Your task to perform on an android device: Open the calendar app, open the side menu, and click the "Day" option Image 0: 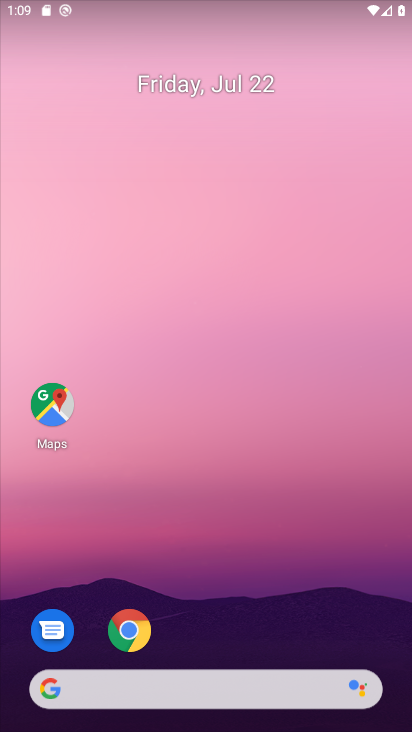
Step 0: drag from (208, 579) to (264, 144)
Your task to perform on an android device: Open the calendar app, open the side menu, and click the "Day" option Image 1: 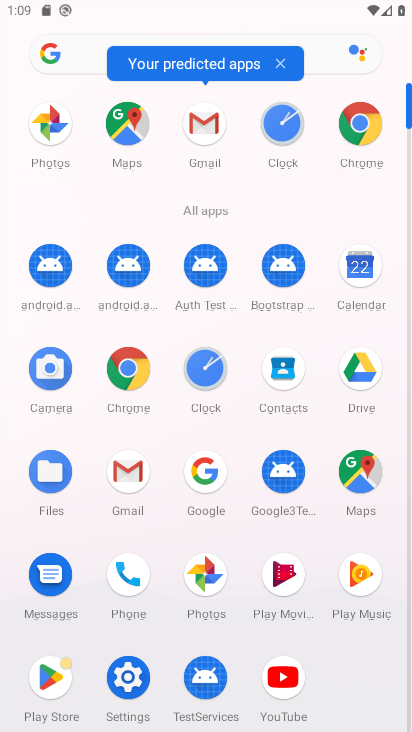
Step 1: click (352, 266)
Your task to perform on an android device: Open the calendar app, open the side menu, and click the "Day" option Image 2: 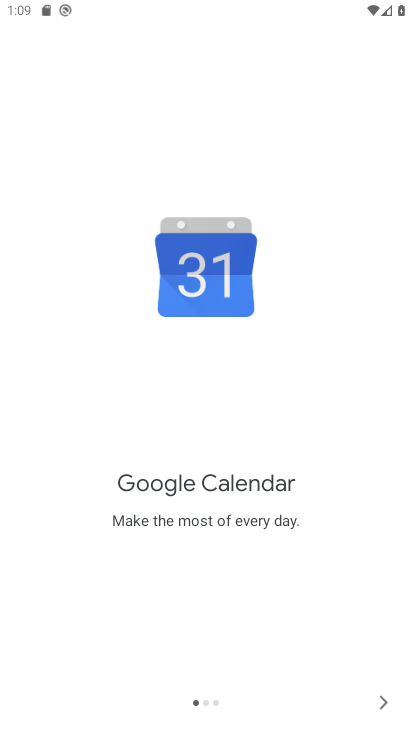
Step 2: click (376, 701)
Your task to perform on an android device: Open the calendar app, open the side menu, and click the "Day" option Image 3: 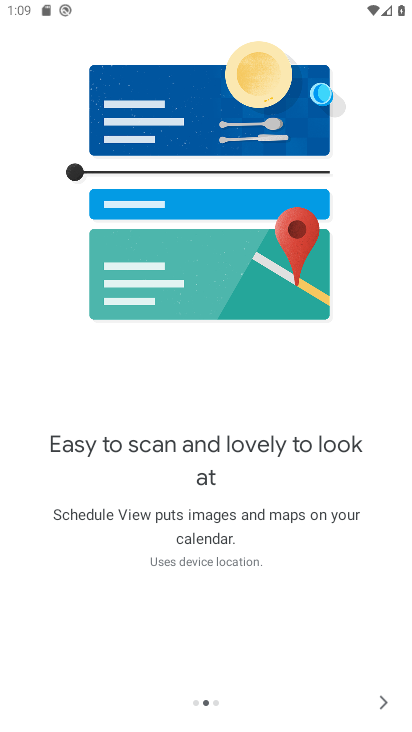
Step 3: click (376, 701)
Your task to perform on an android device: Open the calendar app, open the side menu, and click the "Day" option Image 4: 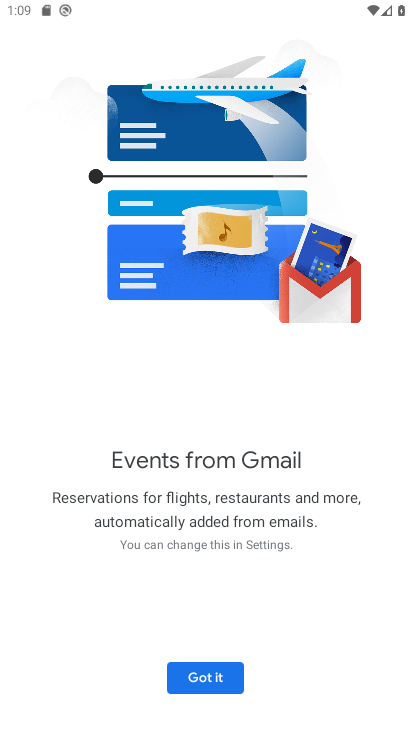
Step 4: click (210, 679)
Your task to perform on an android device: Open the calendar app, open the side menu, and click the "Day" option Image 5: 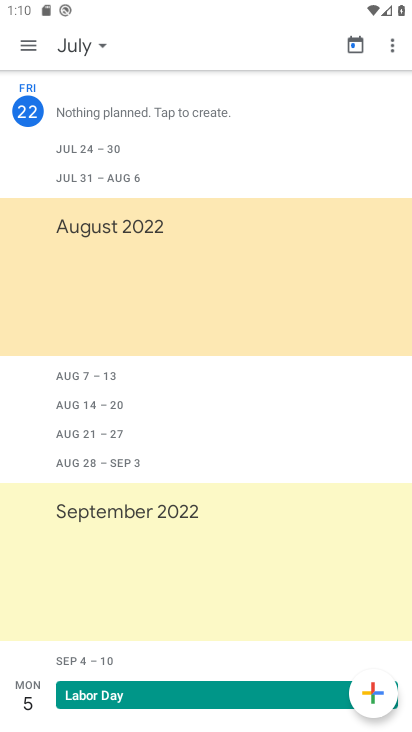
Step 5: click (34, 50)
Your task to perform on an android device: Open the calendar app, open the side menu, and click the "Day" option Image 6: 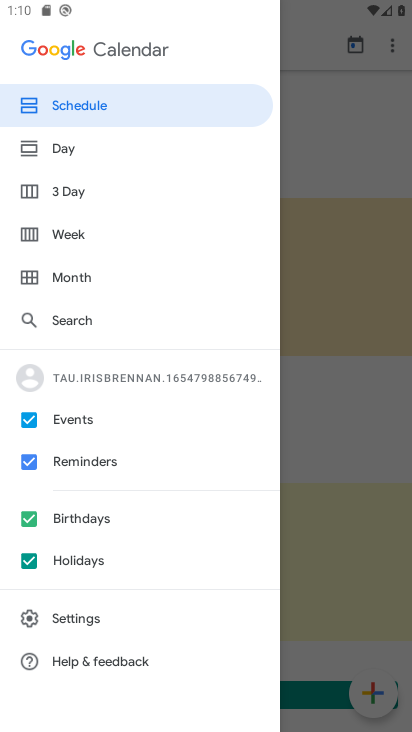
Step 6: click (70, 149)
Your task to perform on an android device: Open the calendar app, open the side menu, and click the "Day" option Image 7: 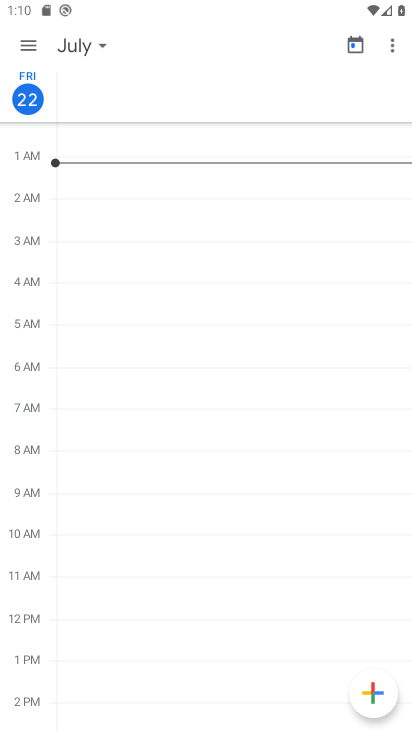
Step 7: task complete